Your task to perform on an android device: toggle improve location accuracy Image 0: 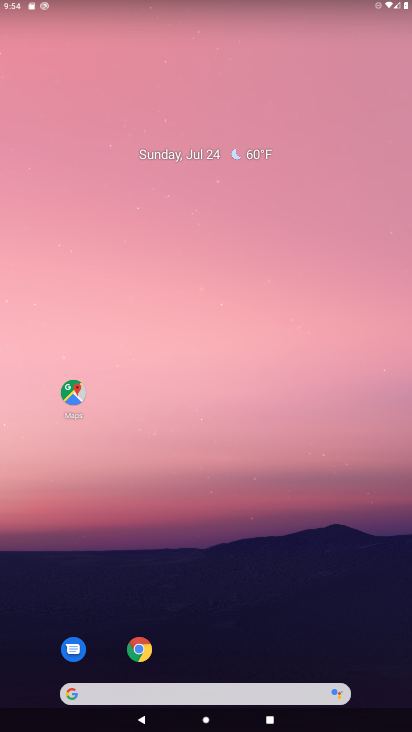
Step 0: drag from (260, 629) to (272, 64)
Your task to perform on an android device: toggle improve location accuracy Image 1: 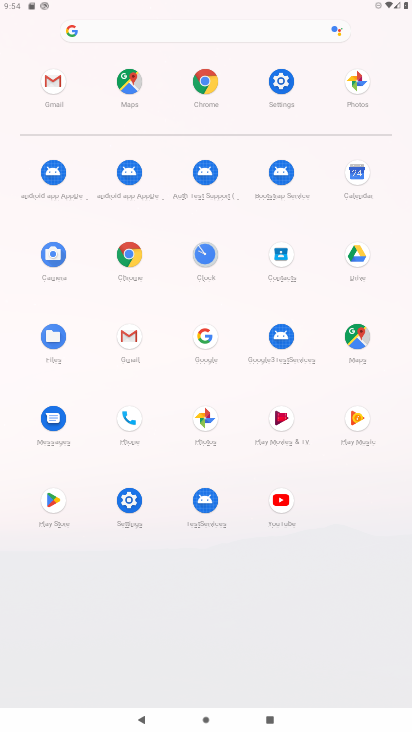
Step 1: click (285, 91)
Your task to perform on an android device: toggle improve location accuracy Image 2: 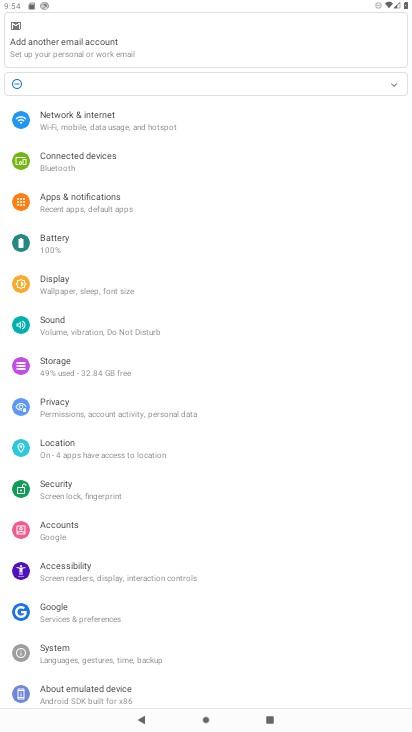
Step 2: click (133, 447)
Your task to perform on an android device: toggle improve location accuracy Image 3: 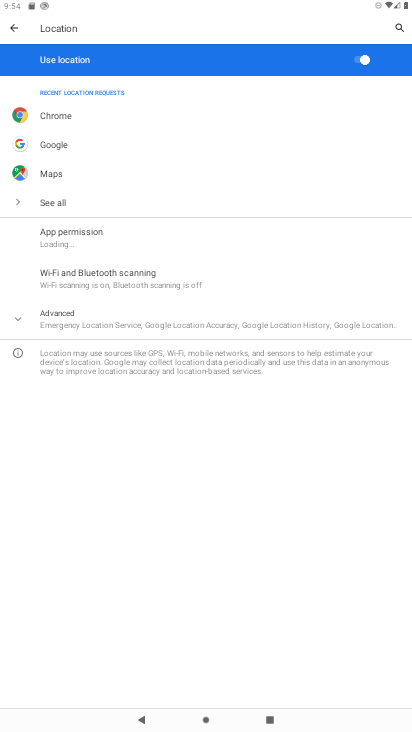
Step 3: click (122, 328)
Your task to perform on an android device: toggle improve location accuracy Image 4: 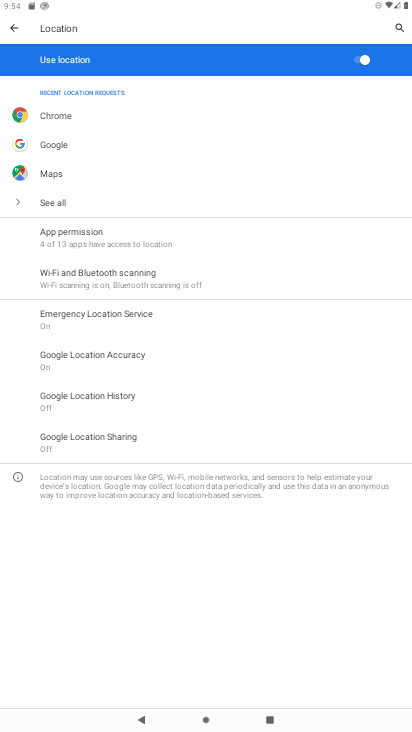
Step 4: click (109, 354)
Your task to perform on an android device: toggle improve location accuracy Image 5: 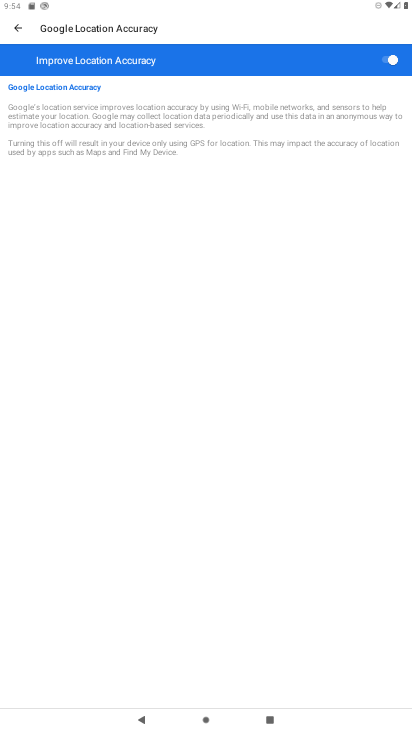
Step 5: click (385, 63)
Your task to perform on an android device: toggle improve location accuracy Image 6: 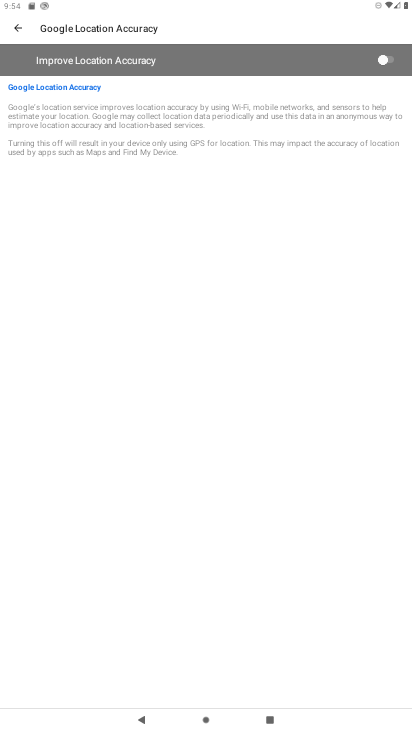
Step 6: task complete